Your task to perform on an android device: move an email to a new category in the gmail app Image 0: 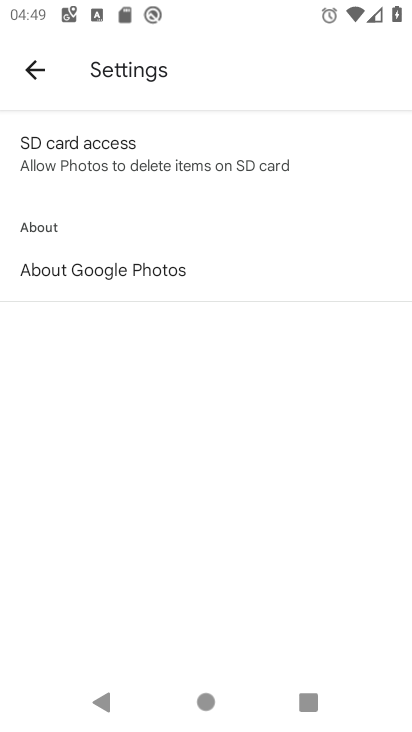
Step 0: press home button
Your task to perform on an android device: move an email to a new category in the gmail app Image 1: 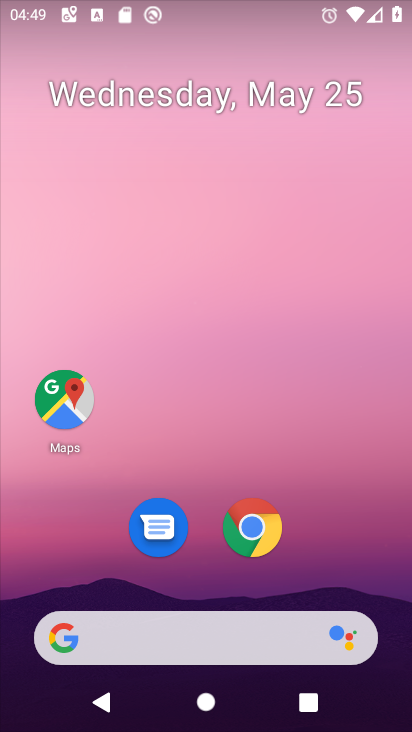
Step 1: drag from (205, 492) to (284, 80)
Your task to perform on an android device: move an email to a new category in the gmail app Image 2: 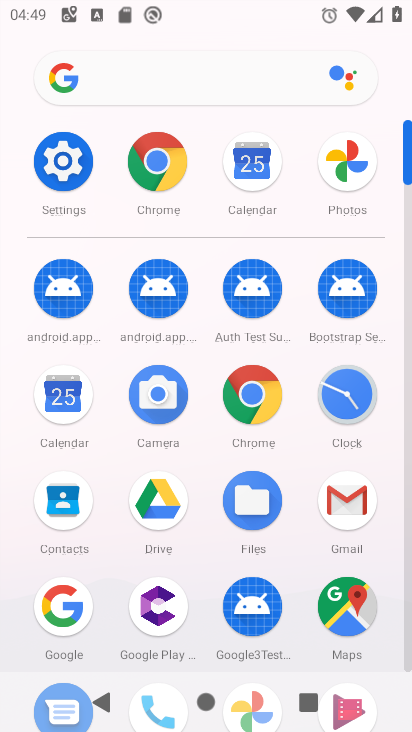
Step 2: click (353, 503)
Your task to perform on an android device: move an email to a new category in the gmail app Image 3: 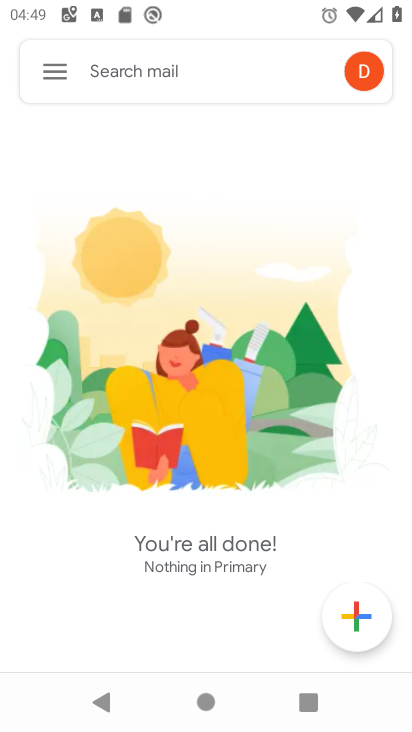
Step 3: click (51, 69)
Your task to perform on an android device: move an email to a new category in the gmail app Image 4: 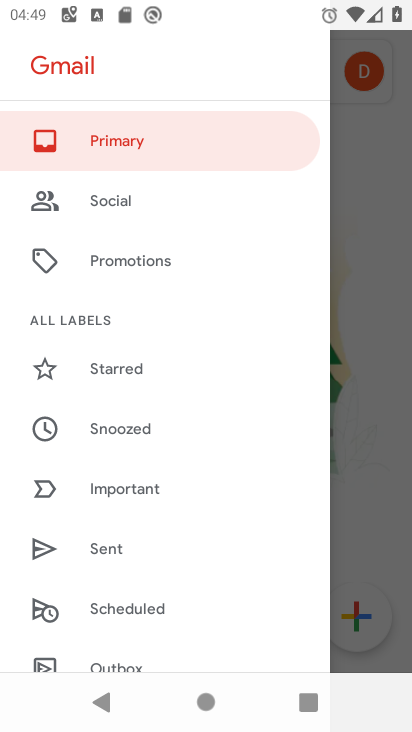
Step 4: click (144, 151)
Your task to perform on an android device: move an email to a new category in the gmail app Image 5: 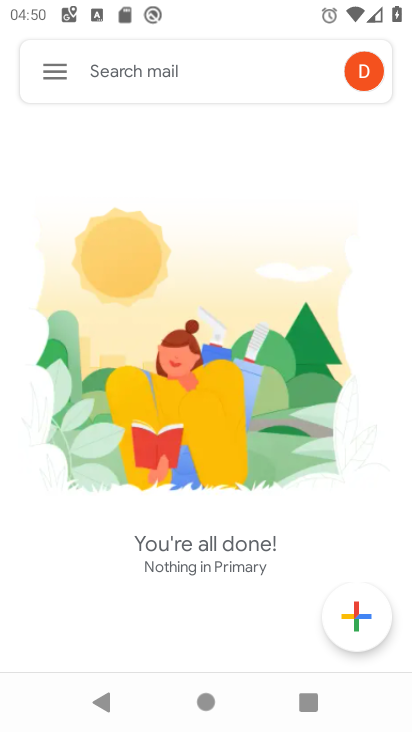
Step 5: click (69, 81)
Your task to perform on an android device: move an email to a new category in the gmail app Image 6: 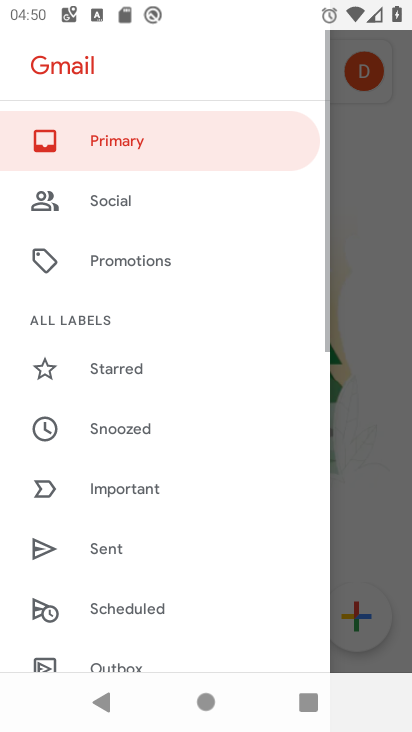
Step 6: click (107, 221)
Your task to perform on an android device: move an email to a new category in the gmail app Image 7: 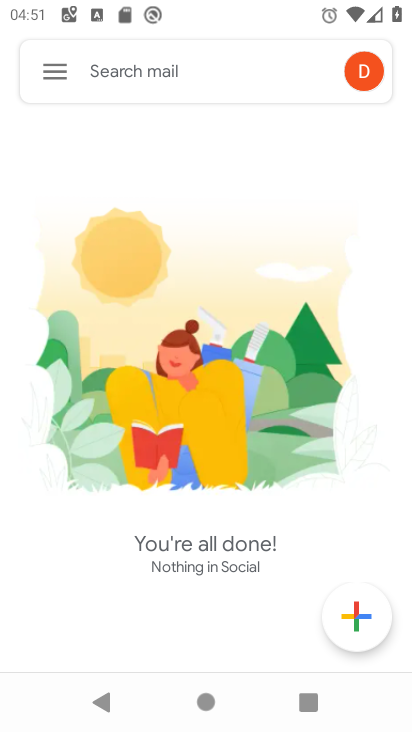
Step 7: task complete